Your task to perform on an android device: turn on bluetooth scan Image 0: 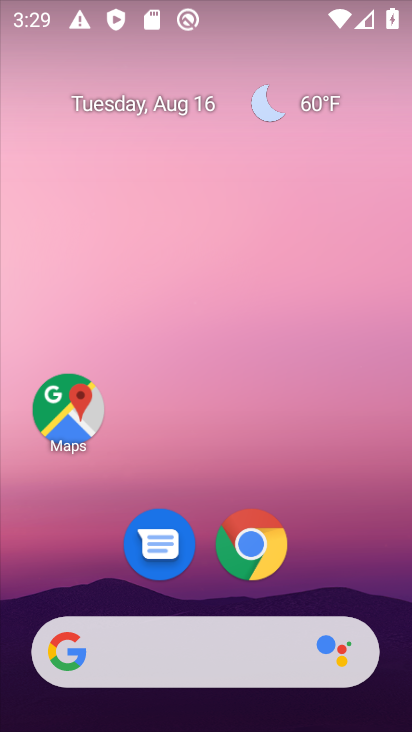
Step 0: drag from (366, 602) to (290, 9)
Your task to perform on an android device: turn on bluetooth scan Image 1: 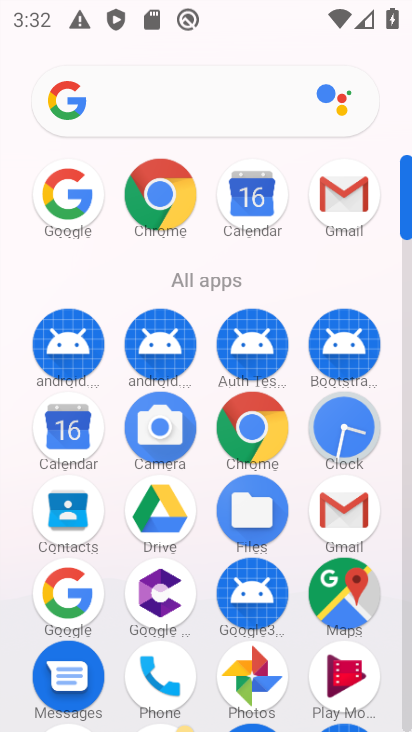
Step 1: drag from (287, 639) to (212, 70)
Your task to perform on an android device: turn on bluetooth scan Image 2: 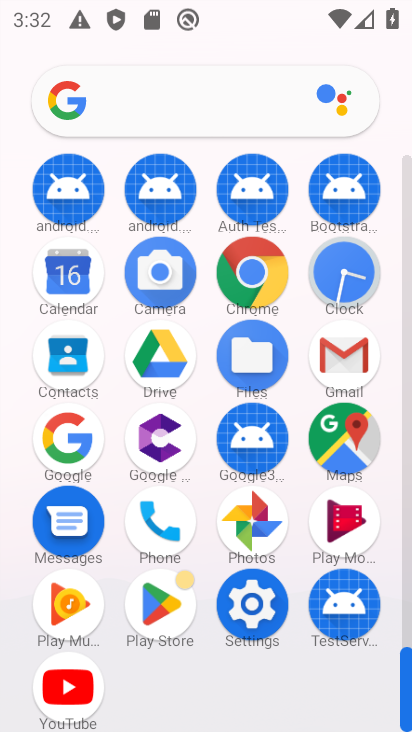
Step 2: click (263, 596)
Your task to perform on an android device: turn on bluetooth scan Image 3: 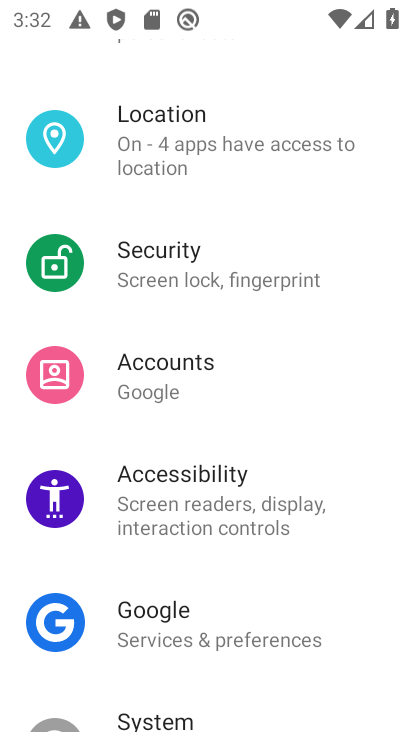
Step 3: click (194, 159)
Your task to perform on an android device: turn on bluetooth scan Image 4: 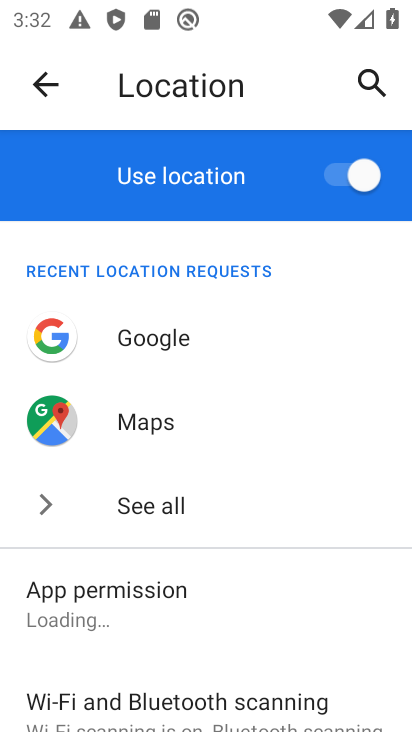
Step 4: click (198, 696)
Your task to perform on an android device: turn on bluetooth scan Image 5: 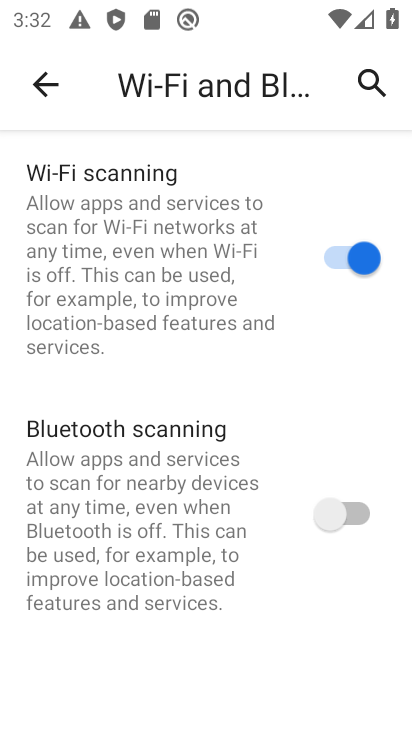
Step 5: click (342, 501)
Your task to perform on an android device: turn on bluetooth scan Image 6: 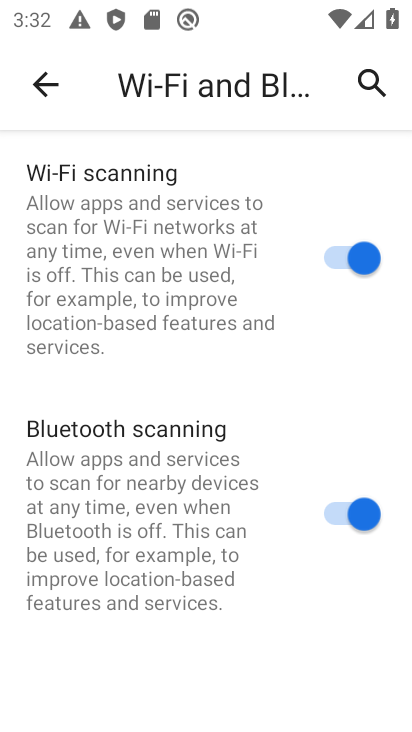
Step 6: task complete